Your task to perform on an android device: Open calendar and show me the third week of next month Image 0: 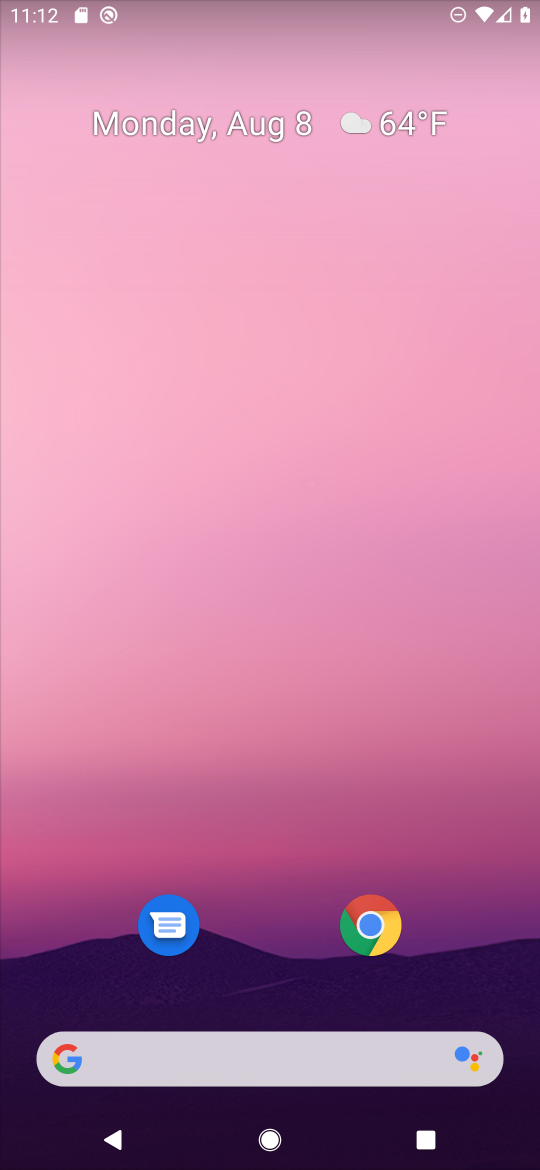
Step 0: drag from (283, 973) to (252, 169)
Your task to perform on an android device: Open calendar and show me the third week of next month Image 1: 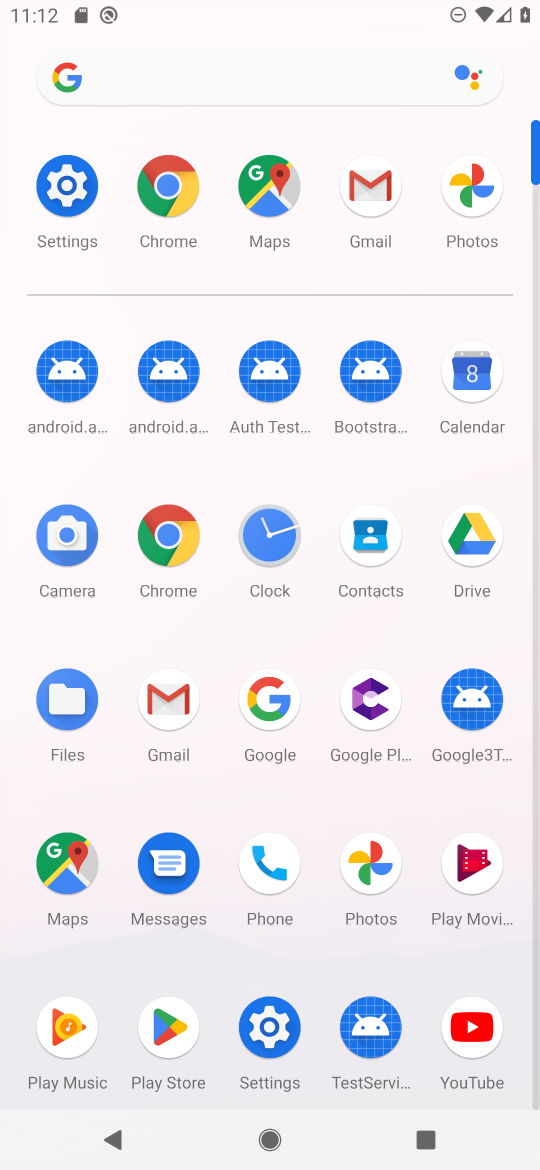
Step 1: click (467, 371)
Your task to perform on an android device: Open calendar and show me the third week of next month Image 2: 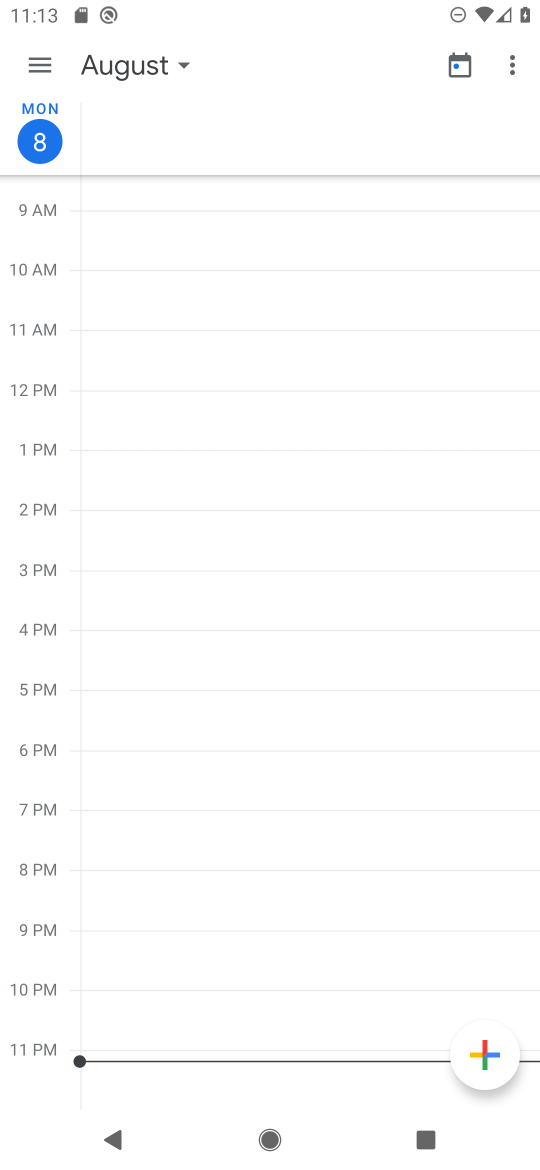
Step 2: click (135, 47)
Your task to perform on an android device: Open calendar and show me the third week of next month Image 3: 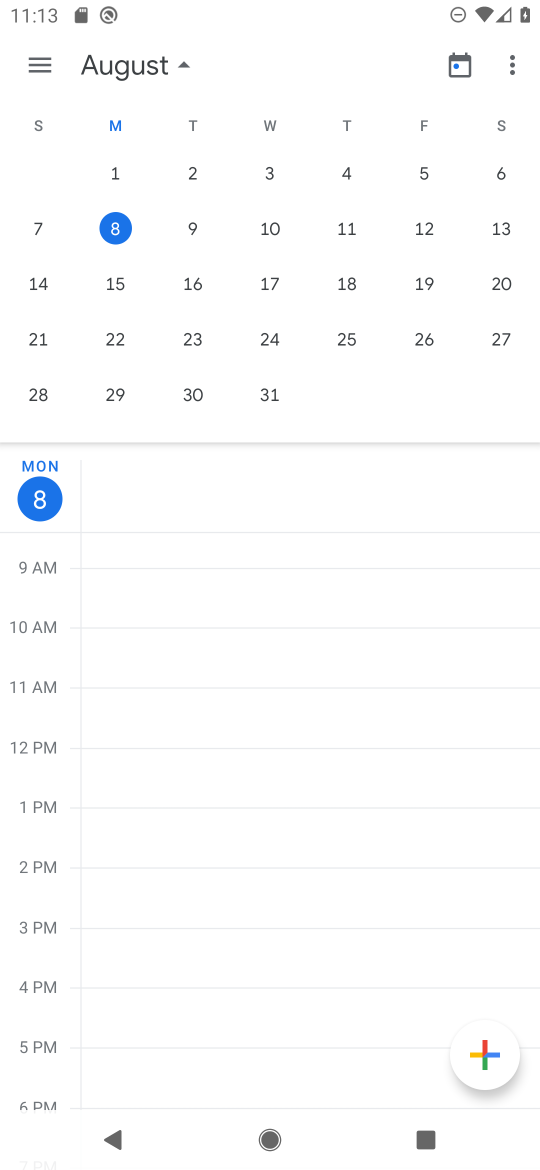
Step 3: drag from (517, 317) to (0, 252)
Your task to perform on an android device: Open calendar and show me the third week of next month Image 4: 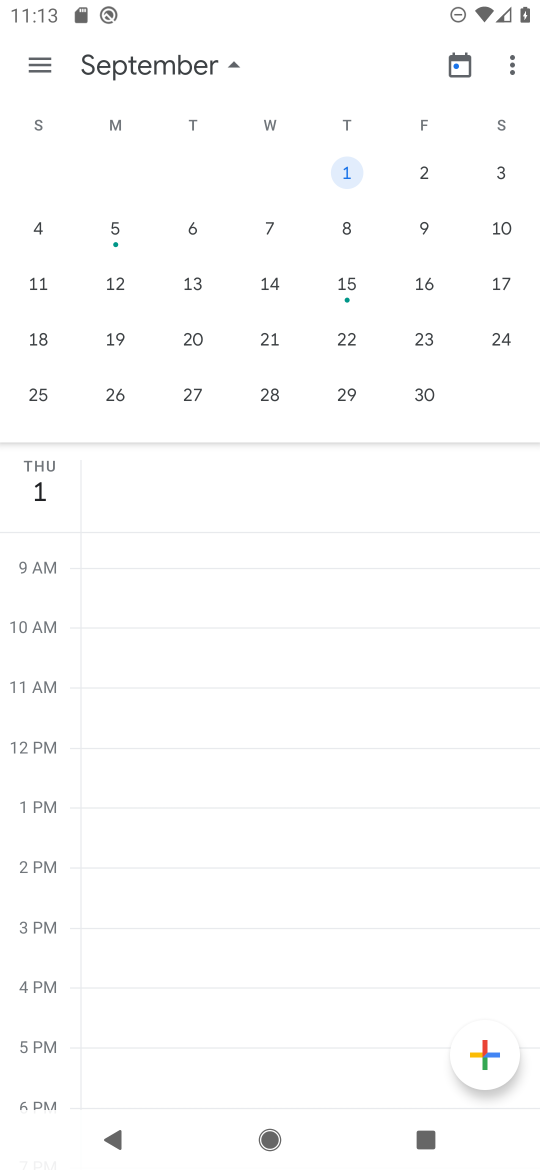
Step 4: click (192, 329)
Your task to perform on an android device: Open calendar and show me the third week of next month Image 5: 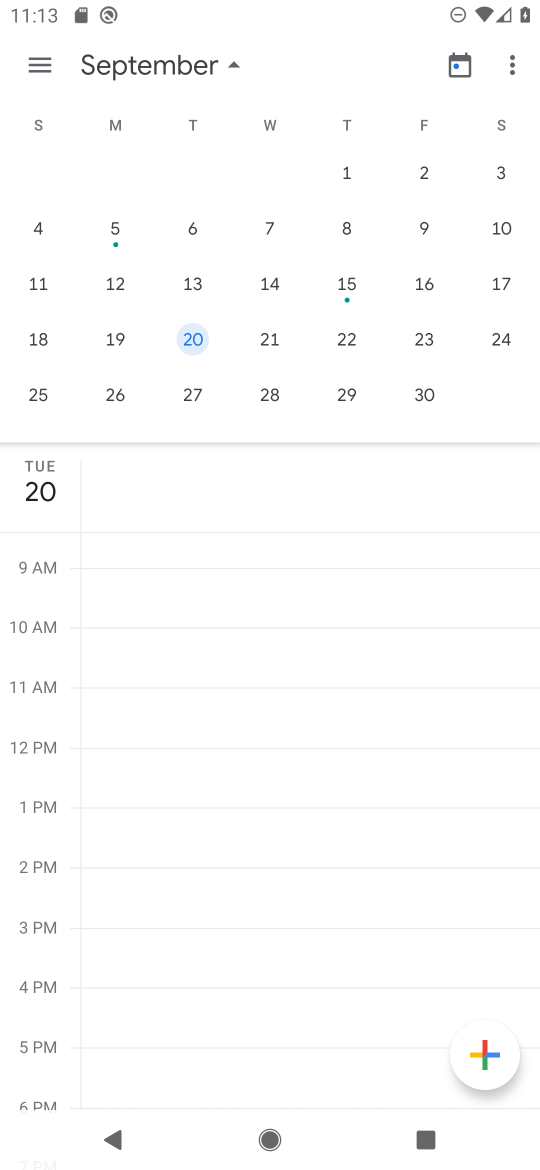
Step 5: click (40, 65)
Your task to perform on an android device: Open calendar and show me the third week of next month Image 6: 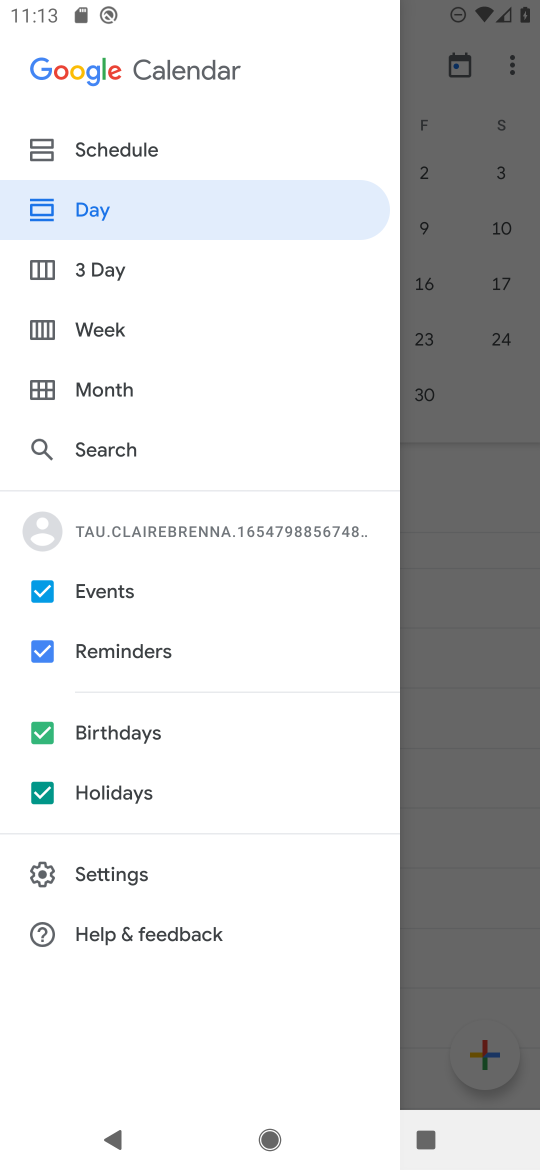
Step 6: click (109, 320)
Your task to perform on an android device: Open calendar and show me the third week of next month Image 7: 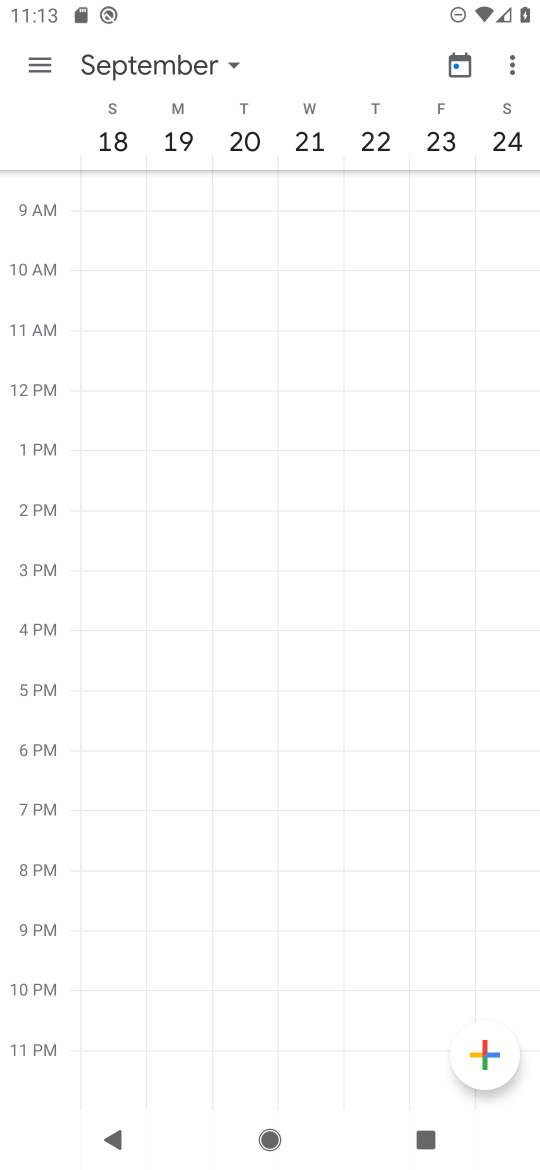
Step 7: task complete